Your task to perform on an android device: Check the weather Image 0: 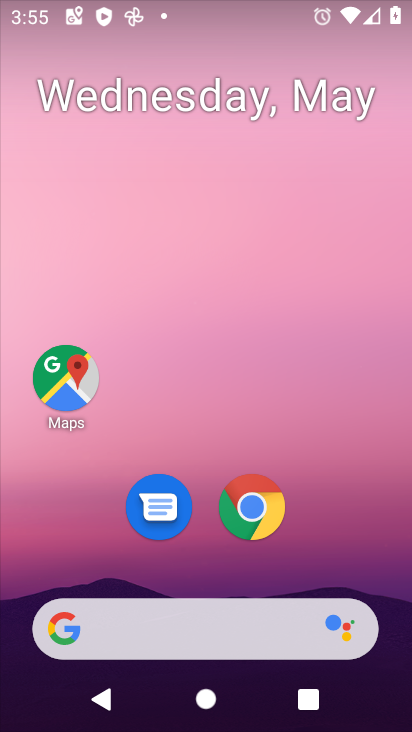
Step 0: click (241, 612)
Your task to perform on an android device: Check the weather Image 1: 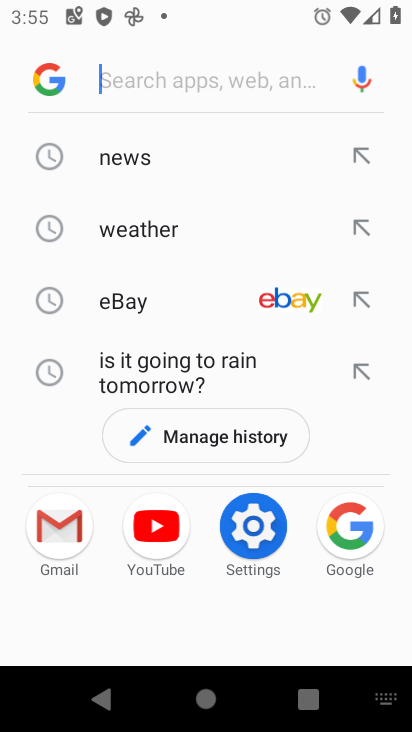
Step 1: click (336, 231)
Your task to perform on an android device: Check the weather Image 2: 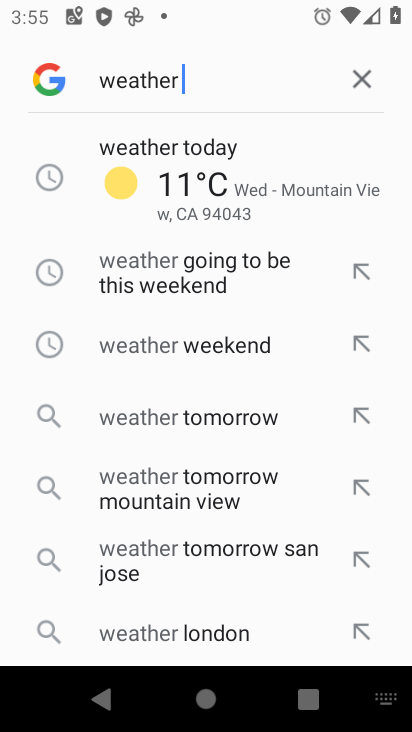
Step 2: click (336, 231)
Your task to perform on an android device: Check the weather Image 3: 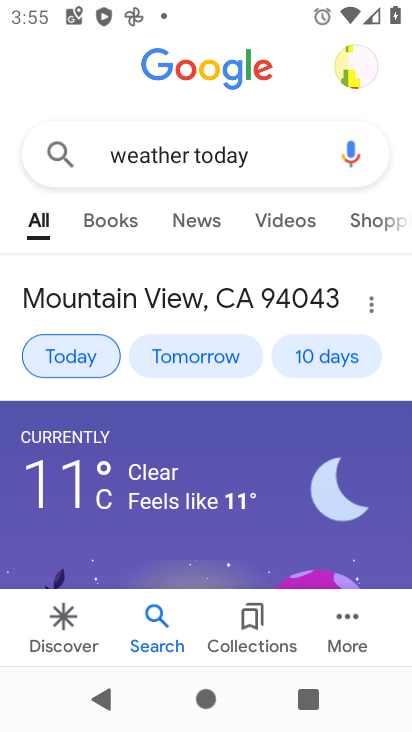
Step 3: task complete